Your task to perform on an android device: Open ESPN.com Image 0: 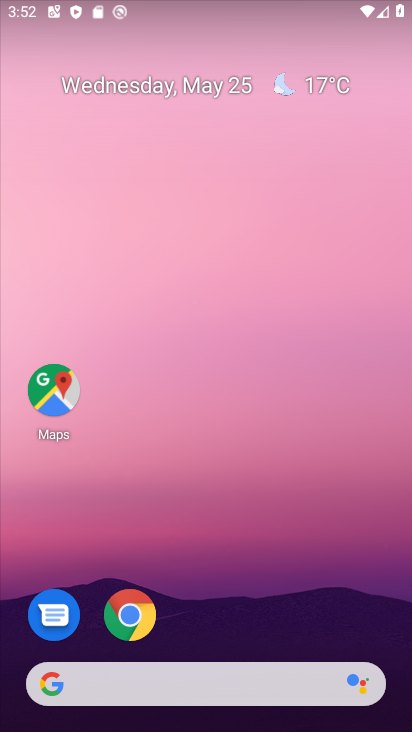
Step 0: click (149, 613)
Your task to perform on an android device: Open ESPN.com Image 1: 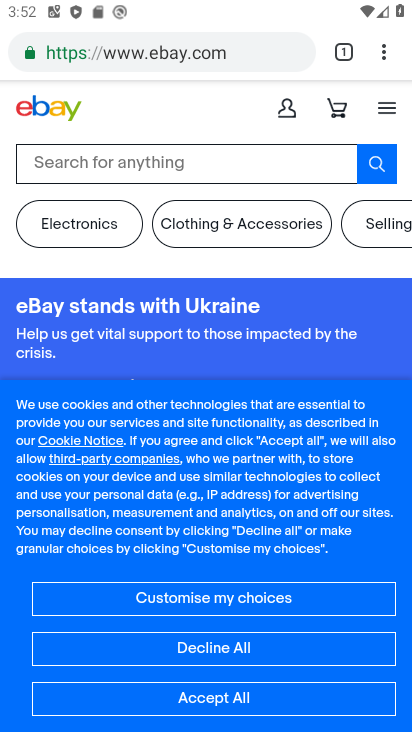
Step 1: click (265, 41)
Your task to perform on an android device: Open ESPN.com Image 2: 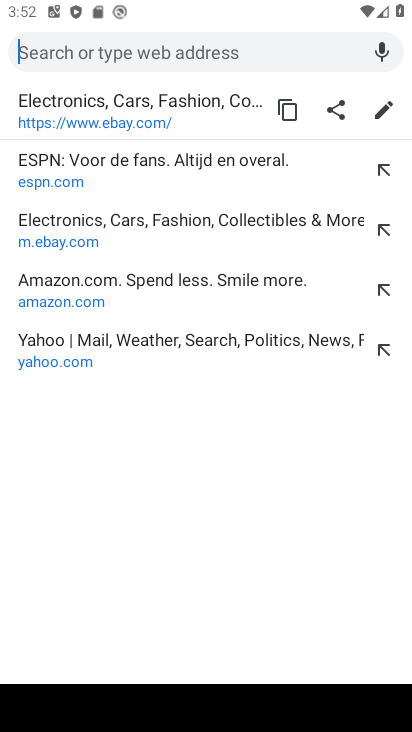
Step 2: click (69, 169)
Your task to perform on an android device: Open ESPN.com Image 3: 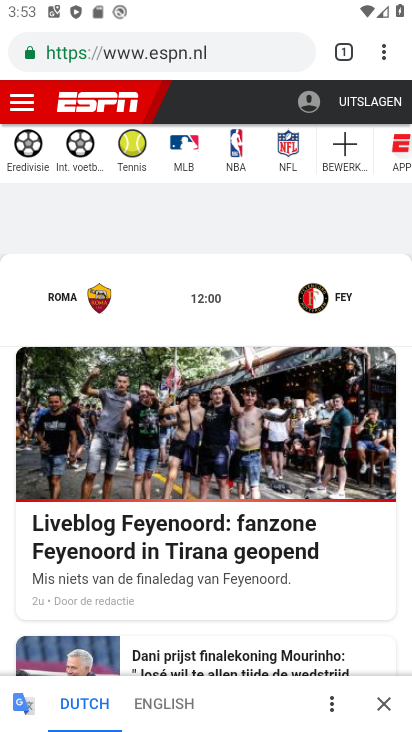
Step 3: task complete